Your task to perform on an android device: open wifi settings Image 0: 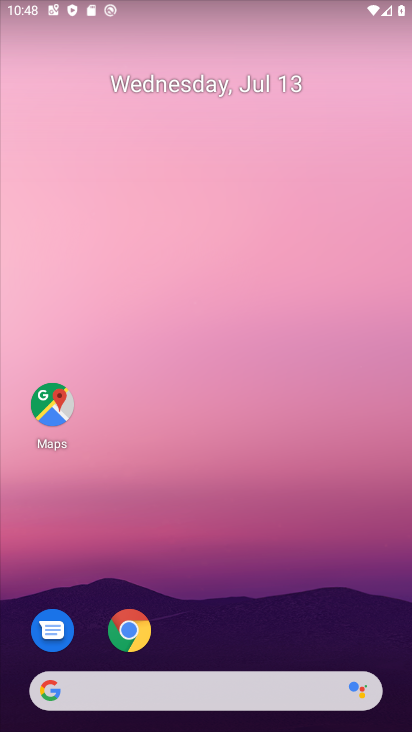
Step 0: drag from (268, 558) to (323, 119)
Your task to perform on an android device: open wifi settings Image 1: 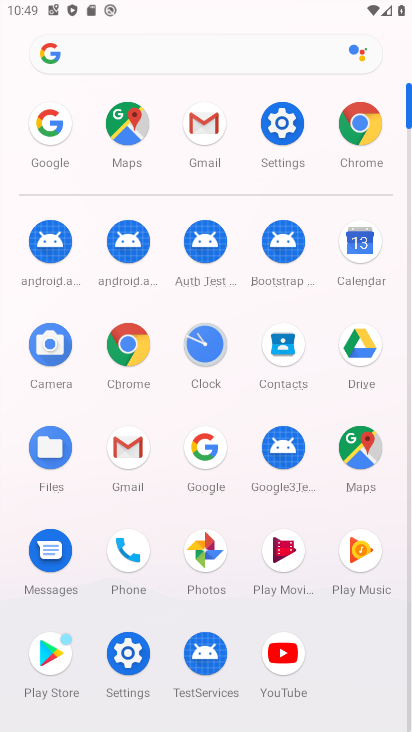
Step 1: click (275, 136)
Your task to perform on an android device: open wifi settings Image 2: 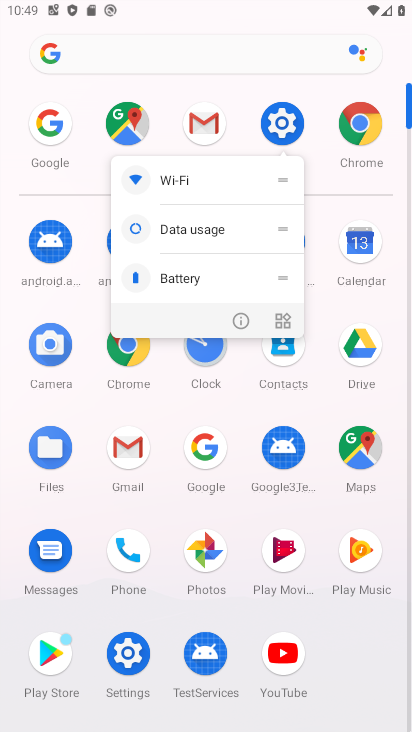
Step 2: click (275, 136)
Your task to perform on an android device: open wifi settings Image 3: 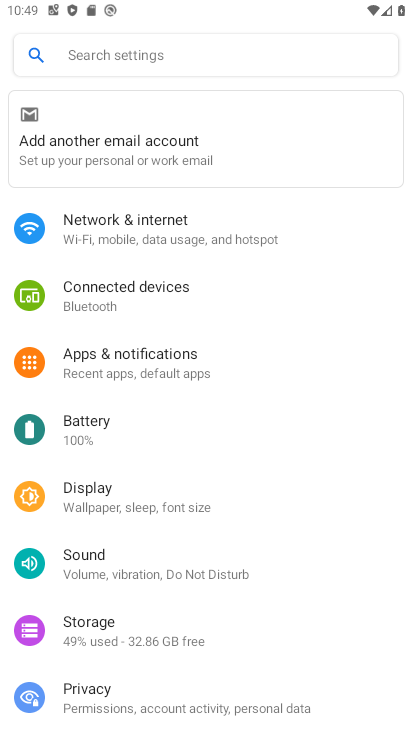
Step 3: click (153, 221)
Your task to perform on an android device: open wifi settings Image 4: 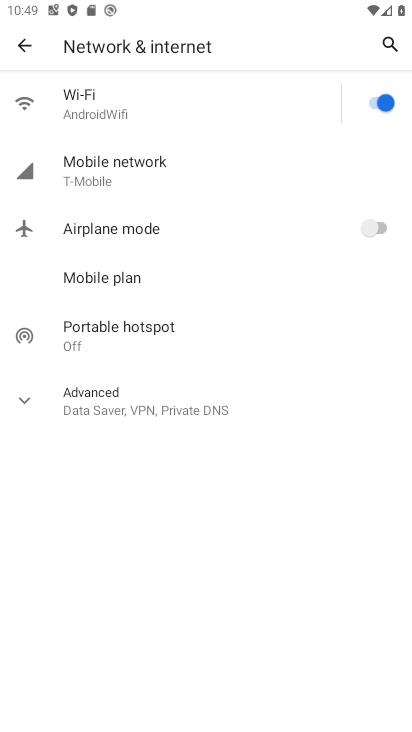
Step 4: click (112, 96)
Your task to perform on an android device: open wifi settings Image 5: 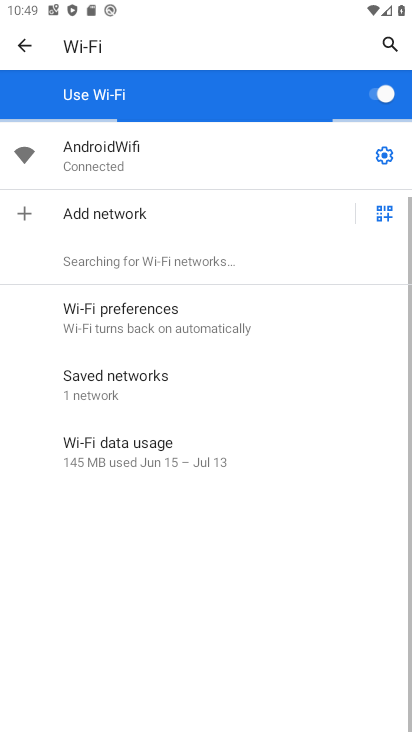
Step 5: task complete